Your task to perform on an android device: move a message to another label in the gmail app Image 0: 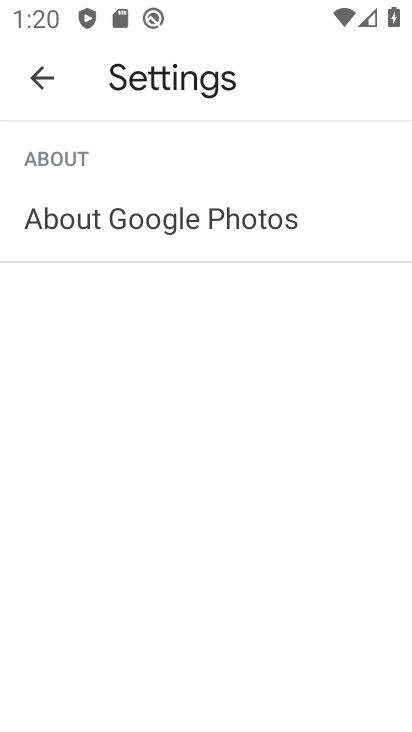
Step 0: press home button
Your task to perform on an android device: move a message to another label in the gmail app Image 1: 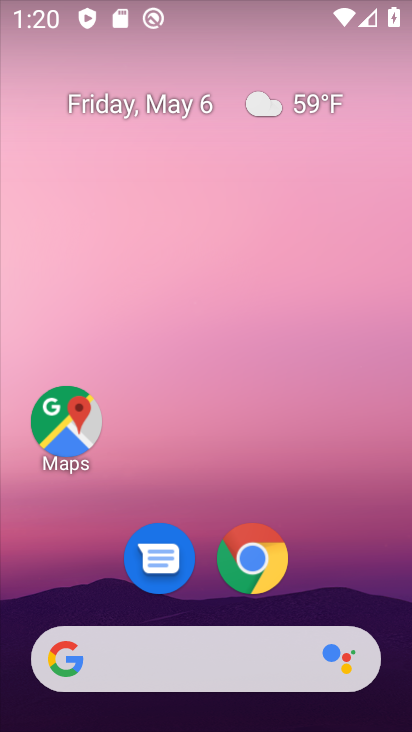
Step 1: drag from (194, 731) to (149, 210)
Your task to perform on an android device: move a message to another label in the gmail app Image 2: 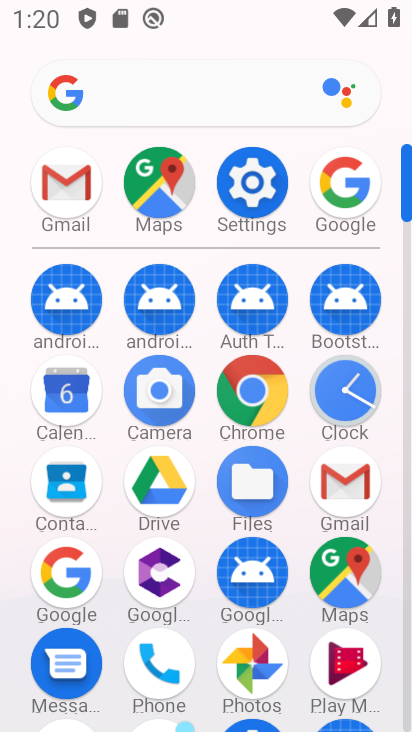
Step 2: click (343, 478)
Your task to perform on an android device: move a message to another label in the gmail app Image 3: 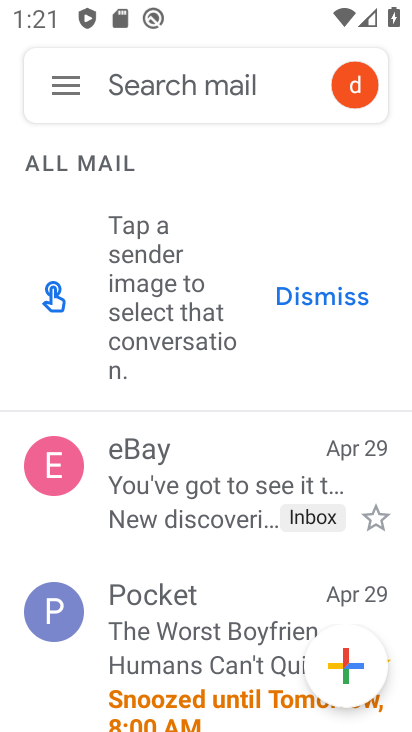
Step 3: click (202, 499)
Your task to perform on an android device: move a message to another label in the gmail app Image 4: 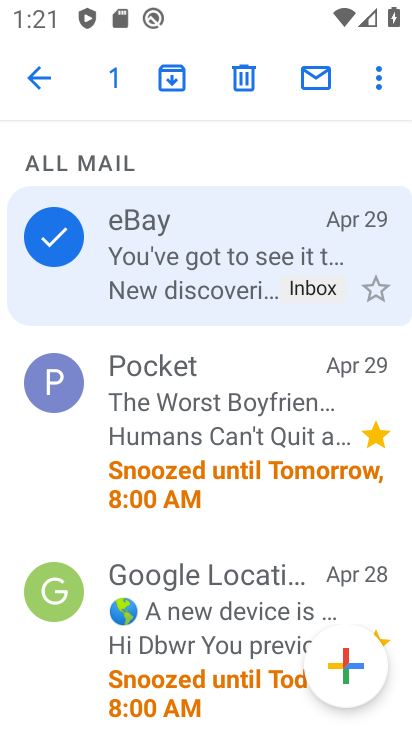
Step 4: click (379, 74)
Your task to perform on an android device: move a message to another label in the gmail app Image 5: 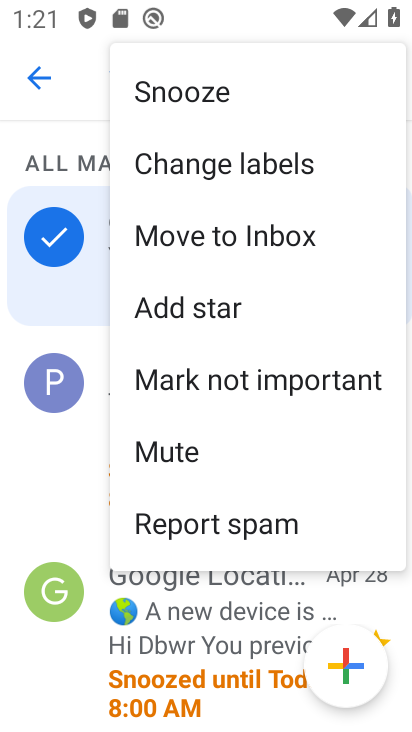
Step 5: click (206, 232)
Your task to perform on an android device: move a message to another label in the gmail app Image 6: 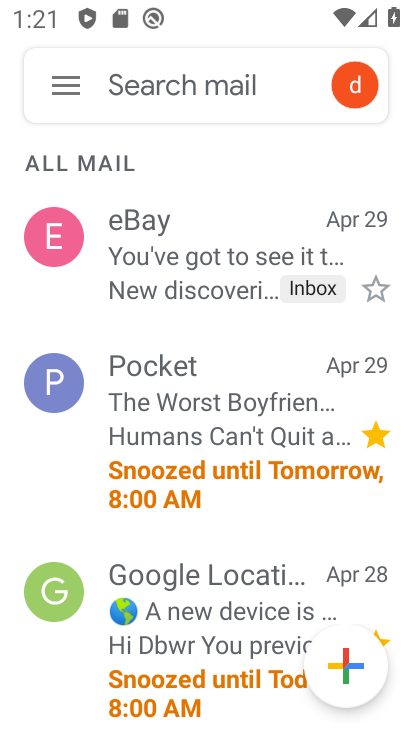
Step 6: task complete